Your task to perform on an android device: move an email to a new category in the gmail app Image 0: 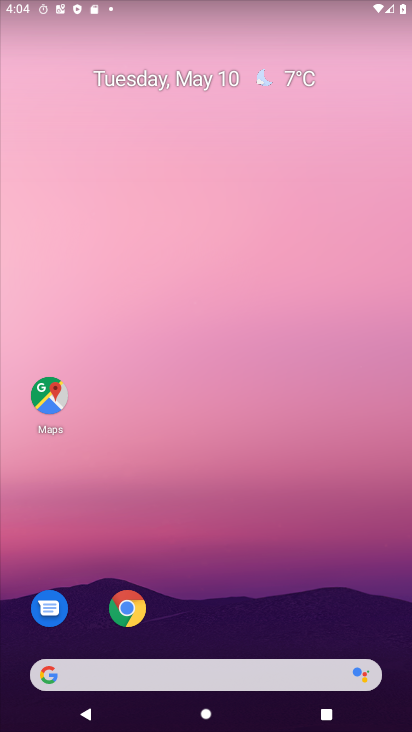
Step 0: drag from (324, 645) to (318, 1)
Your task to perform on an android device: move an email to a new category in the gmail app Image 1: 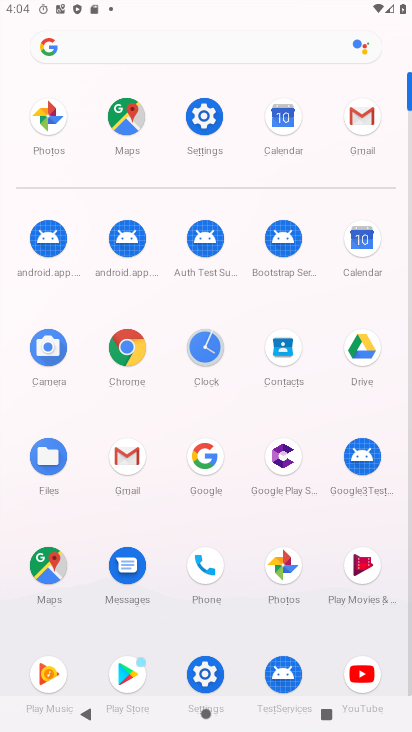
Step 1: click (127, 451)
Your task to perform on an android device: move an email to a new category in the gmail app Image 2: 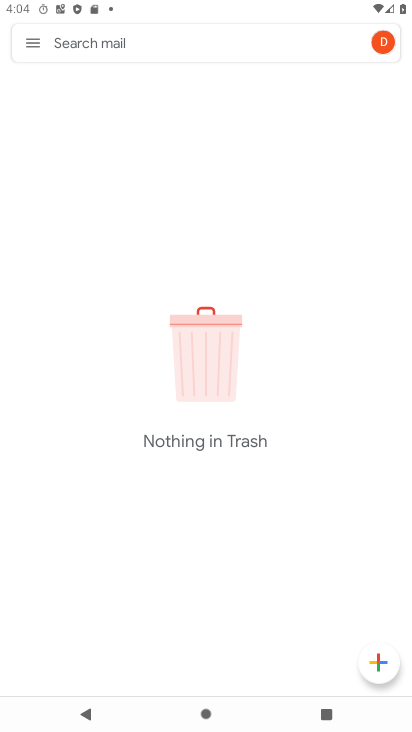
Step 2: click (33, 43)
Your task to perform on an android device: move an email to a new category in the gmail app Image 3: 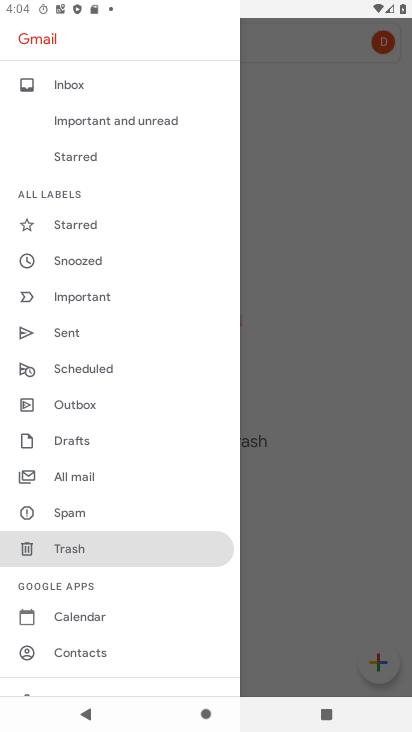
Step 3: click (62, 473)
Your task to perform on an android device: move an email to a new category in the gmail app Image 4: 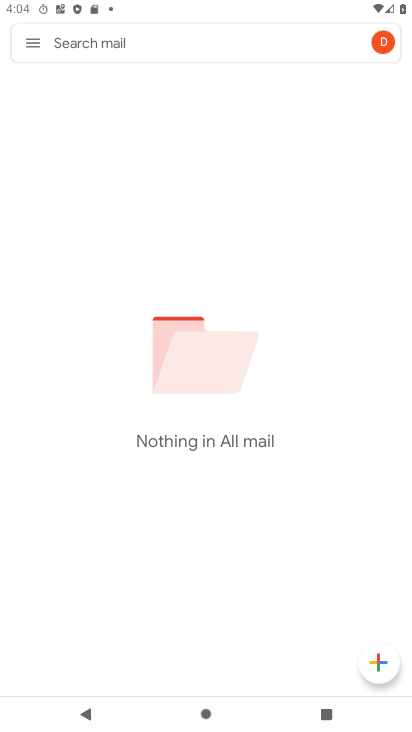
Step 4: task complete